Your task to perform on an android device: Search for pizza restaurants on Maps Image 0: 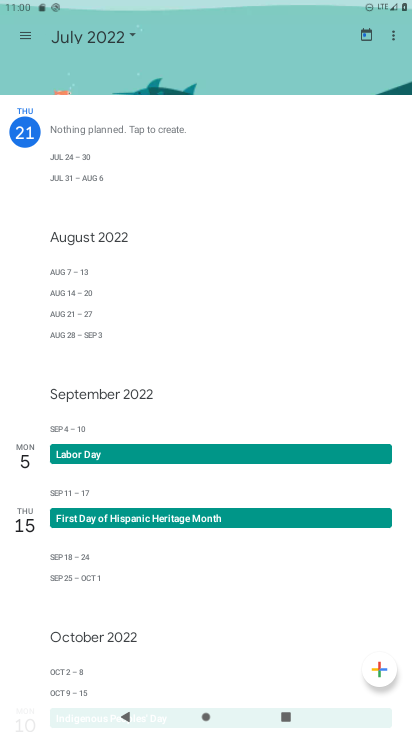
Step 0: press home button
Your task to perform on an android device: Search for pizza restaurants on Maps Image 1: 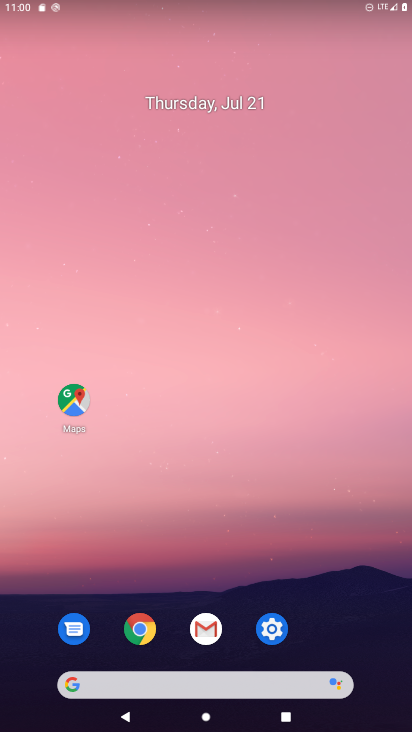
Step 1: click (57, 384)
Your task to perform on an android device: Search for pizza restaurants on Maps Image 2: 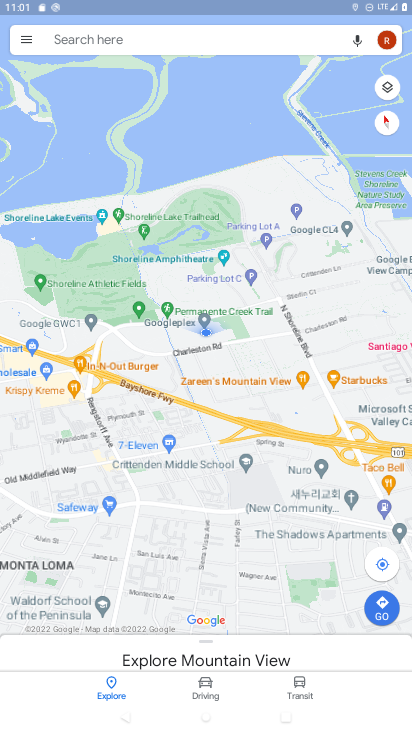
Step 2: click (82, 45)
Your task to perform on an android device: Search for pizza restaurants on Maps Image 3: 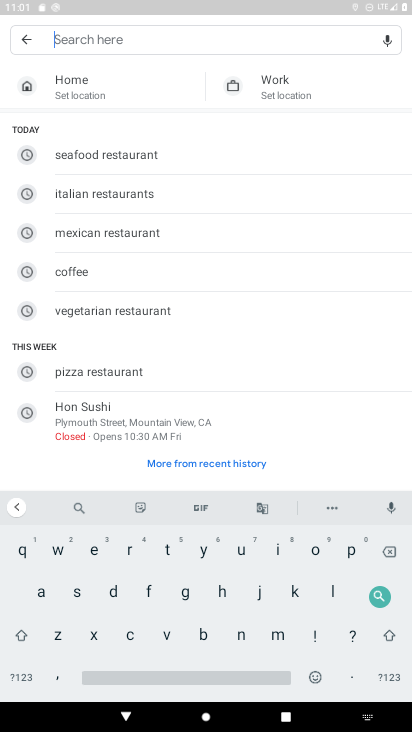
Step 3: click (115, 374)
Your task to perform on an android device: Search for pizza restaurants on Maps Image 4: 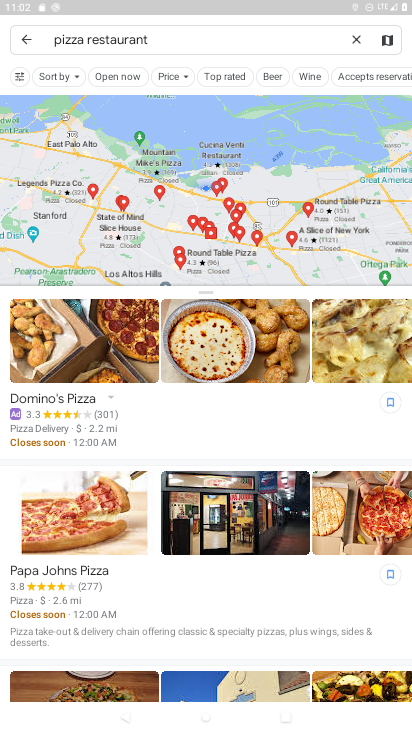
Step 4: task complete